Your task to perform on an android device: Open the web browser Image 0: 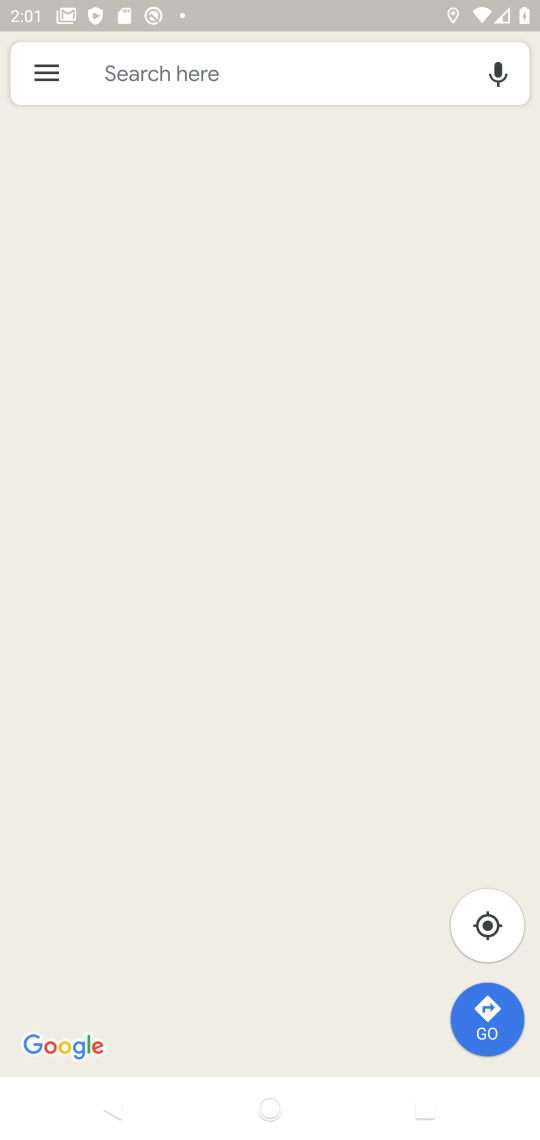
Step 0: press home button
Your task to perform on an android device: Open the web browser Image 1: 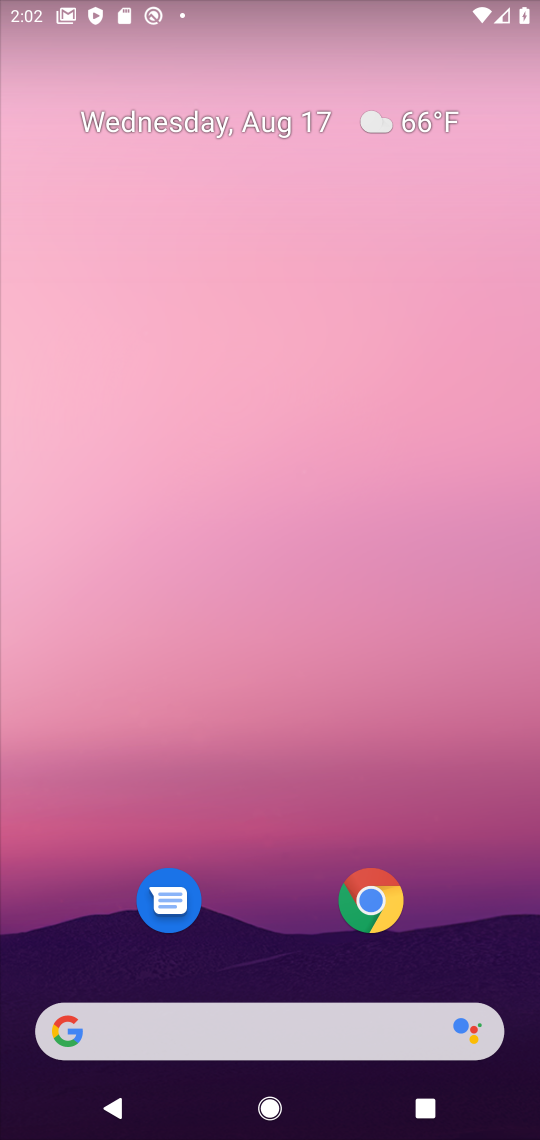
Step 1: click (369, 886)
Your task to perform on an android device: Open the web browser Image 2: 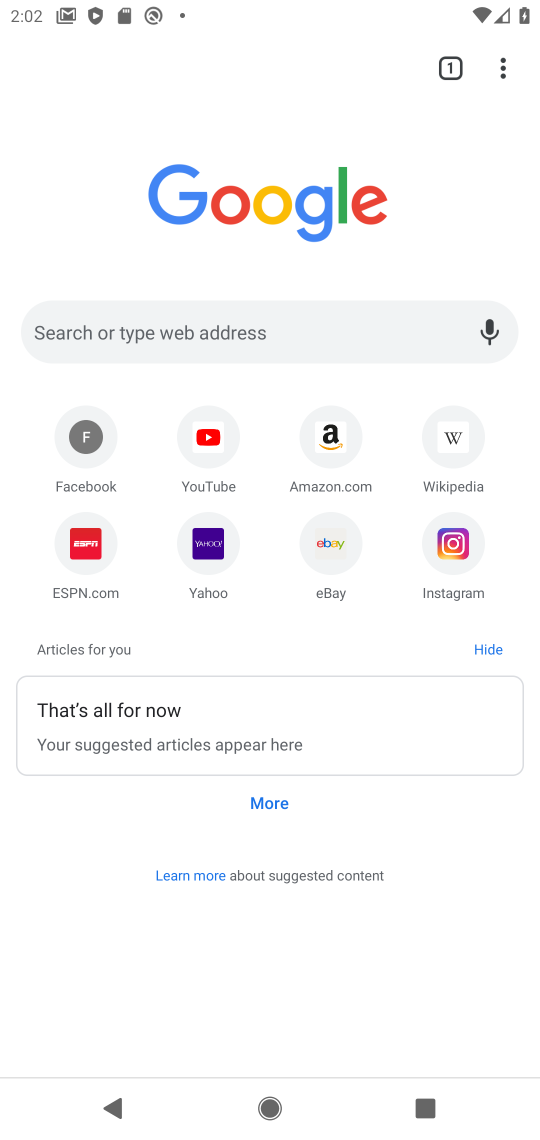
Step 2: click (369, 894)
Your task to perform on an android device: Open the web browser Image 3: 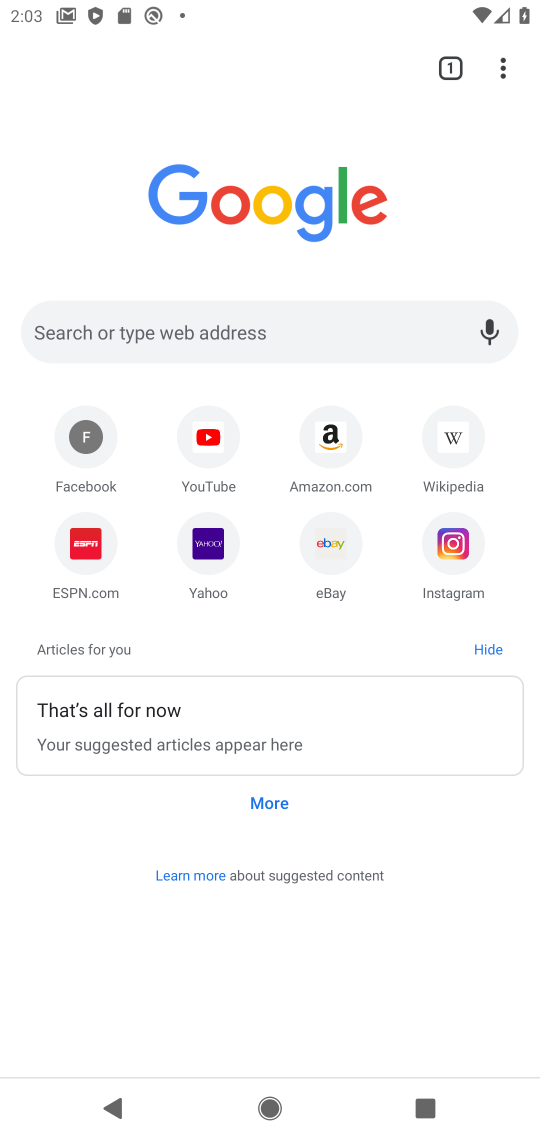
Step 3: task complete